Your task to perform on an android device: See recent photos Image 0: 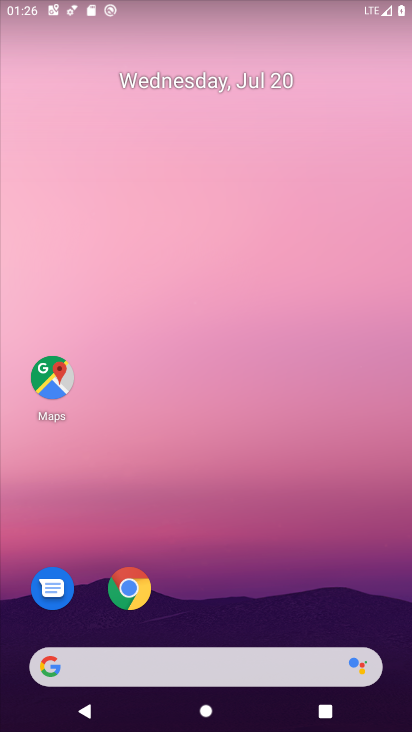
Step 0: drag from (209, 590) to (209, 300)
Your task to perform on an android device: See recent photos Image 1: 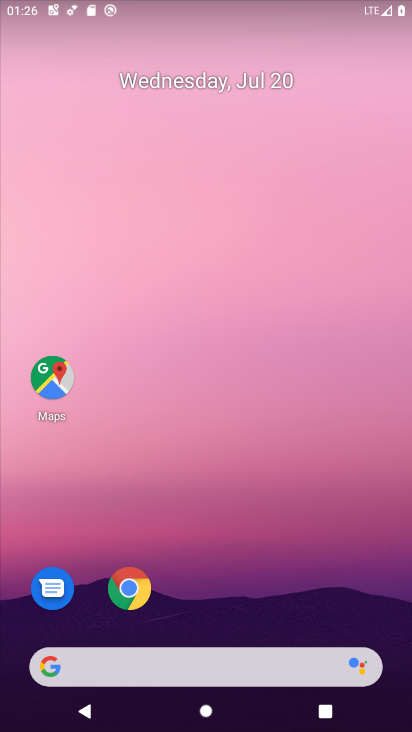
Step 1: drag from (214, 557) to (226, 333)
Your task to perform on an android device: See recent photos Image 2: 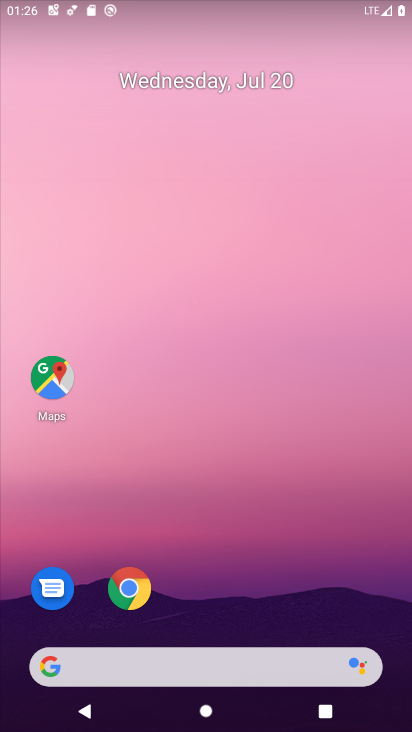
Step 2: drag from (230, 626) to (269, 267)
Your task to perform on an android device: See recent photos Image 3: 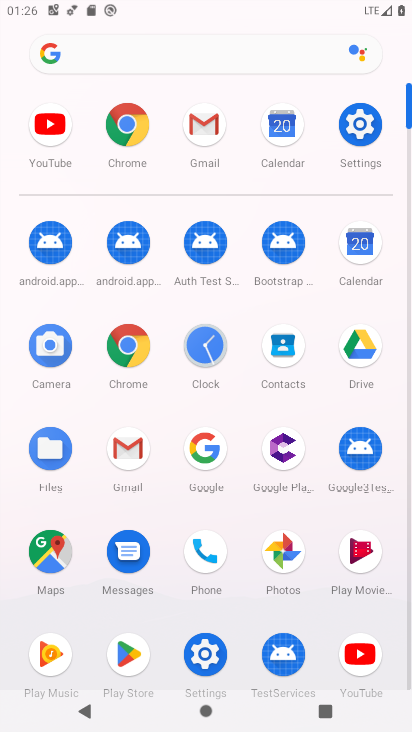
Step 3: click (288, 553)
Your task to perform on an android device: See recent photos Image 4: 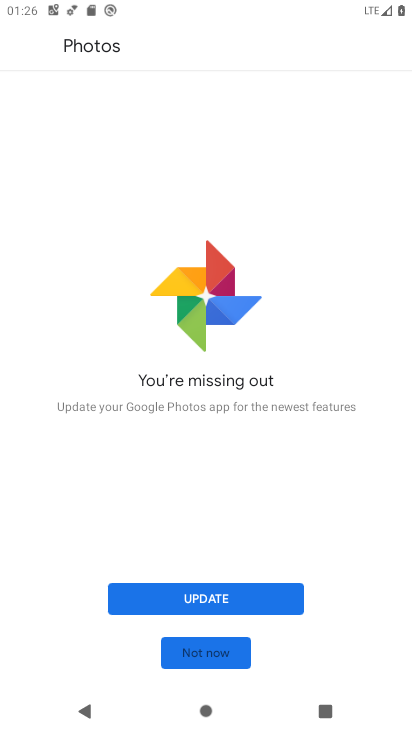
Step 4: click (196, 647)
Your task to perform on an android device: See recent photos Image 5: 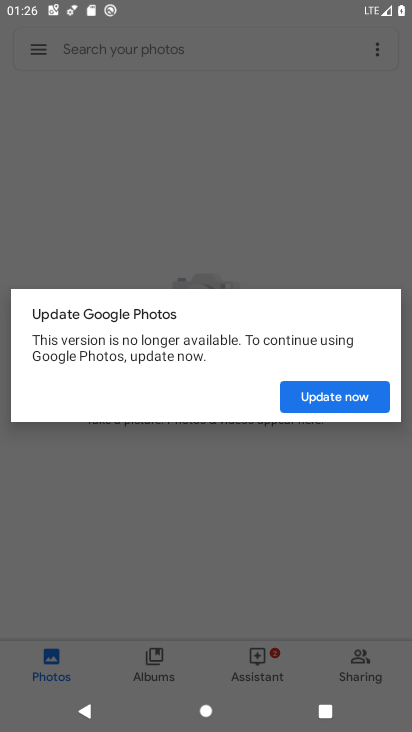
Step 5: click (314, 387)
Your task to perform on an android device: See recent photos Image 6: 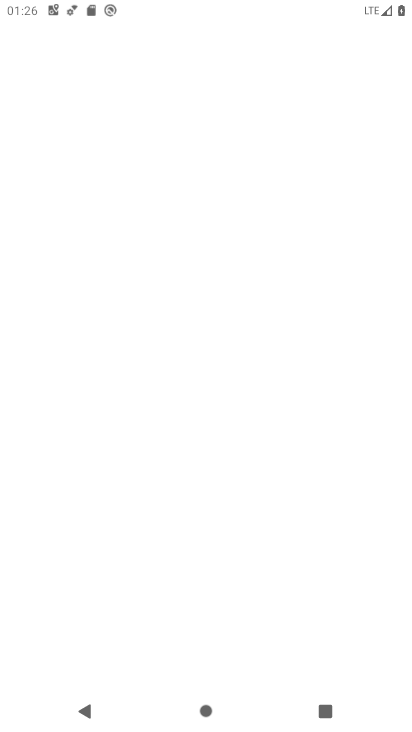
Step 6: press back button
Your task to perform on an android device: See recent photos Image 7: 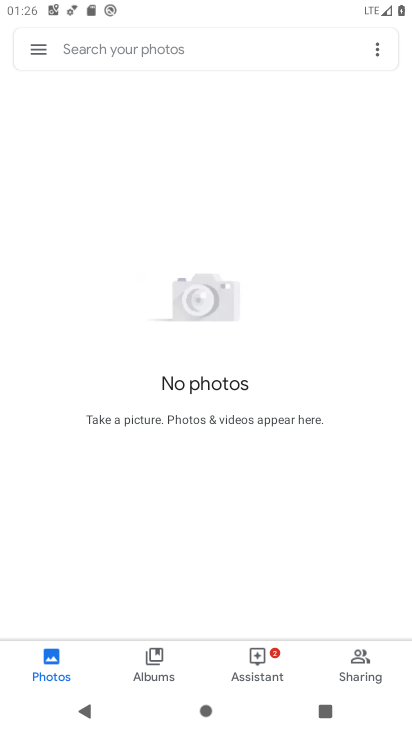
Step 7: click (153, 644)
Your task to perform on an android device: See recent photos Image 8: 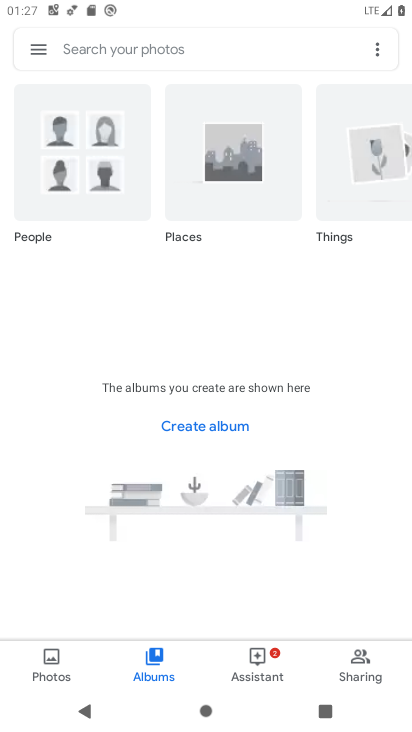
Step 8: task complete